Your task to perform on an android device: see creations saved in the google photos Image 0: 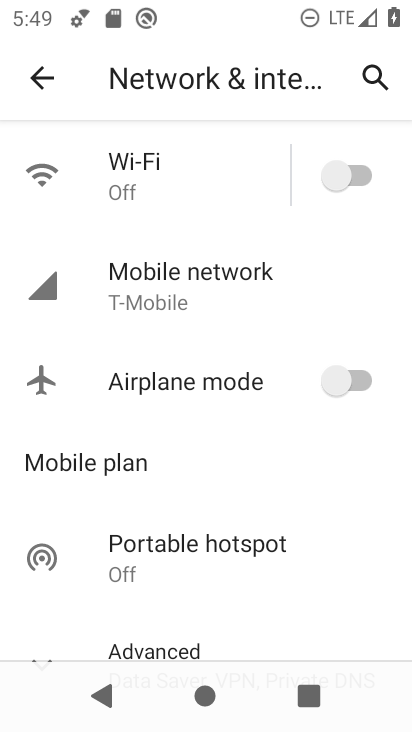
Step 0: press home button
Your task to perform on an android device: see creations saved in the google photos Image 1: 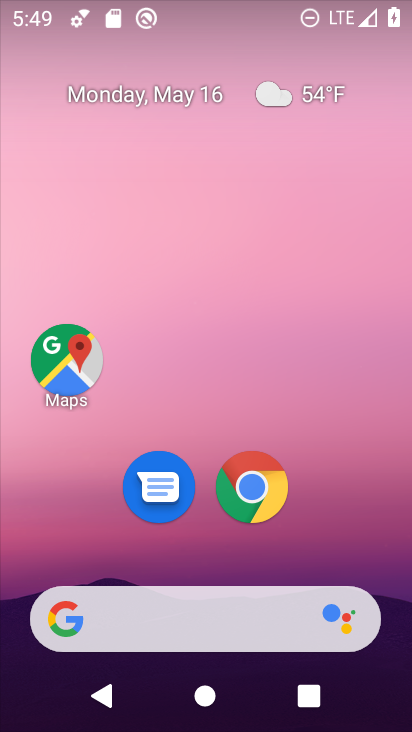
Step 1: click (76, 362)
Your task to perform on an android device: see creations saved in the google photos Image 2: 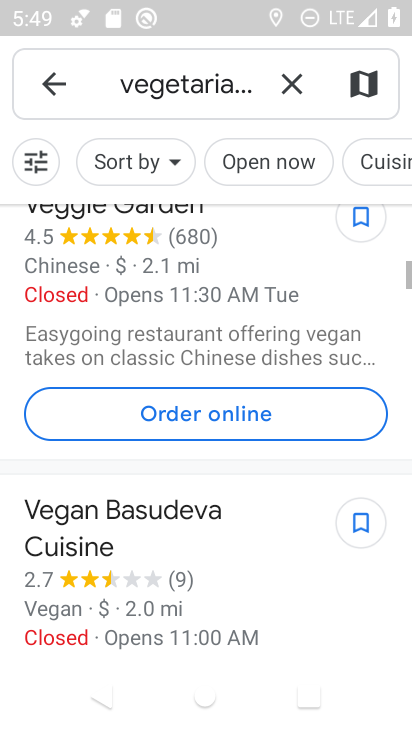
Step 2: click (288, 88)
Your task to perform on an android device: see creations saved in the google photos Image 3: 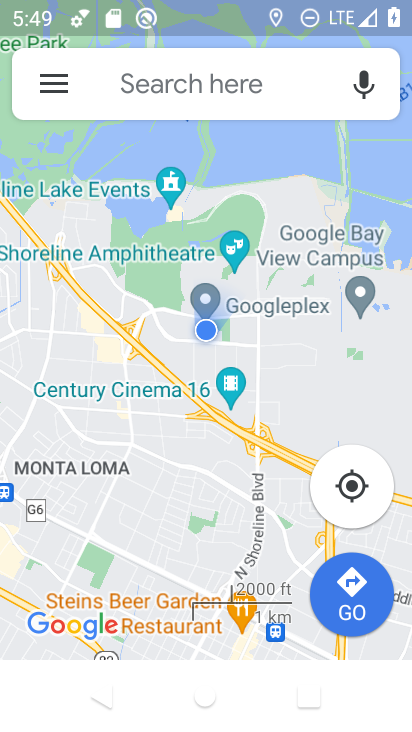
Step 3: task complete